Your task to perform on an android device: allow cookies in the chrome app Image 0: 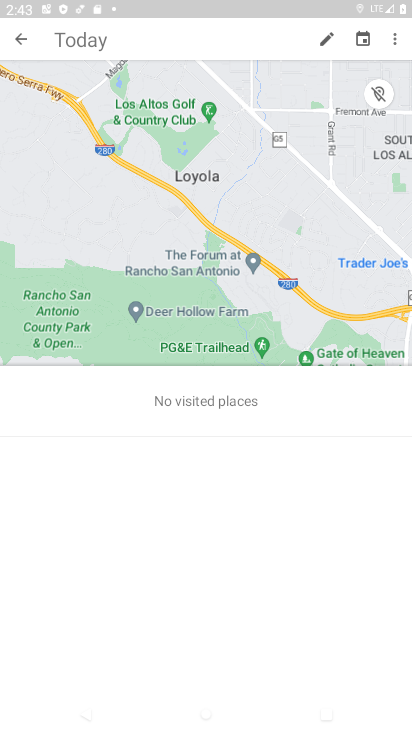
Step 0: press home button
Your task to perform on an android device: allow cookies in the chrome app Image 1: 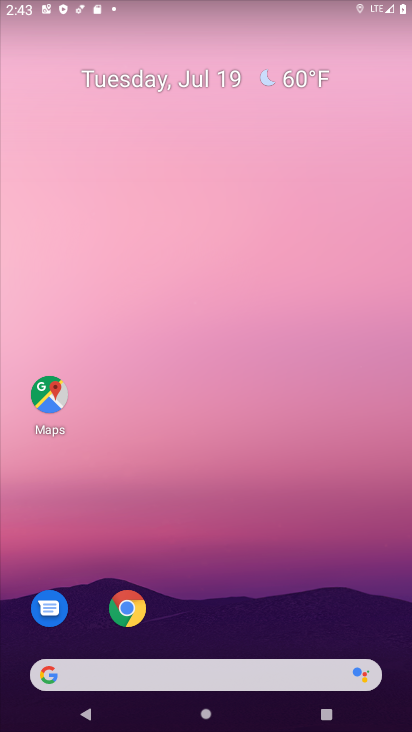
Step 1: drag from (183, 528) to (239, 11)
Your task to perform on an android device: allow cookies in the chrome app Image 2: 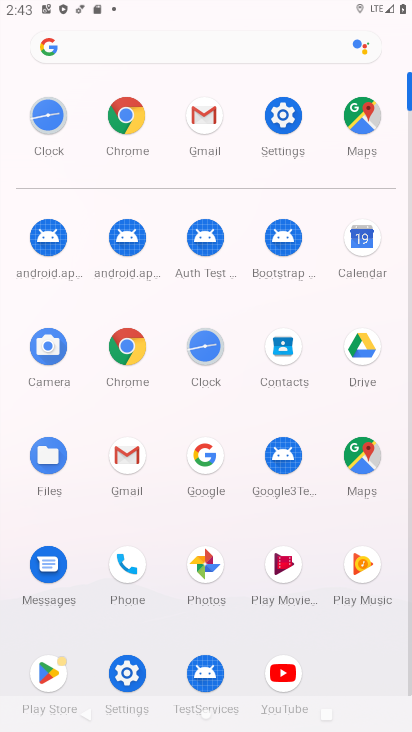
Step 2: click (123, 121)
Your task to perform on an android device: allow cookies in the chrome app Image 3: 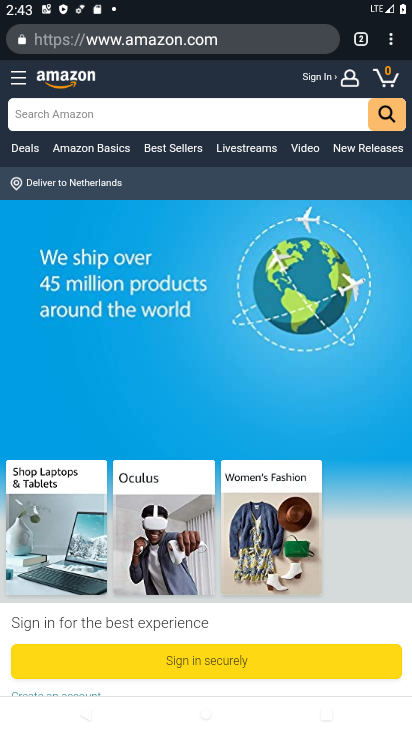
Step 3: drag from (382, 45) to (270, 479)
Your task to perform on an android device: allow cookies in the chrome app Image 4: 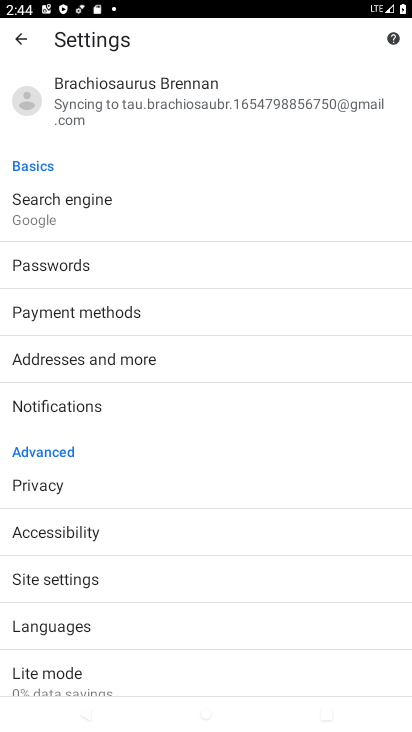
Step 4: click (109, 581)
Your task to perform on an android device: allow cookies in the chrome app Image 5: 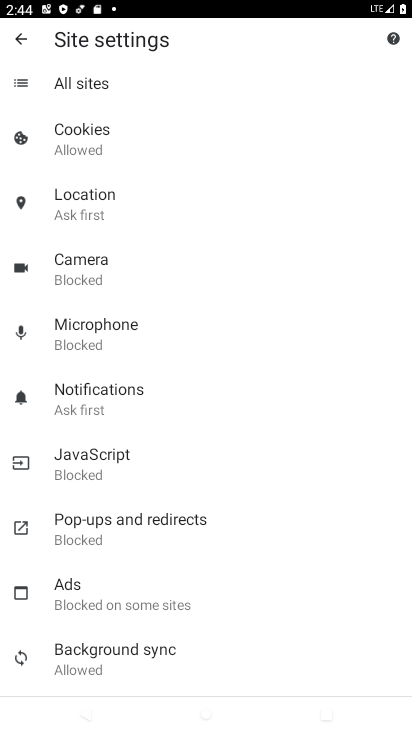
Step 5: click (95, 146)
Your task to perform on an android device: allow cookies in the chrome app Image 6: 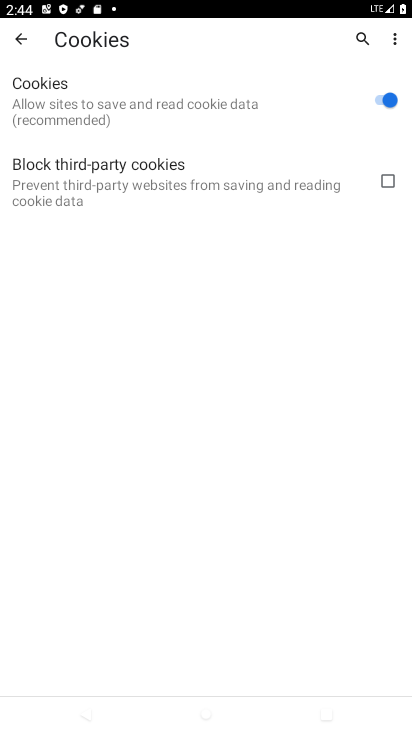
Step 6: task complete